Your task to perform on an android device: open app "Mercado Libre" Image 0: 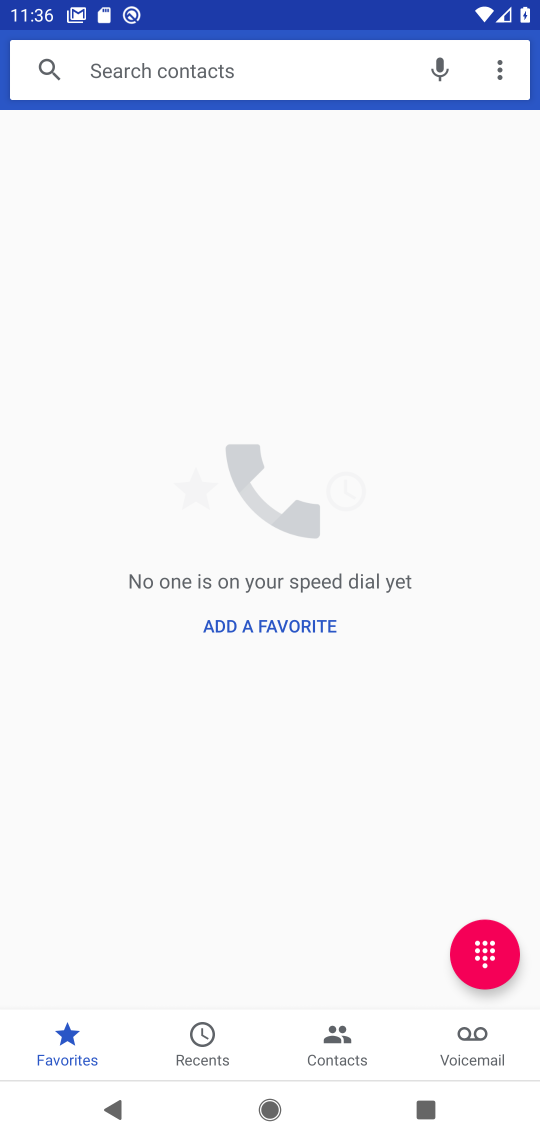
Step 0: press home button
Your task to perform on an android device: open app "Mercado Libre" Image 1: 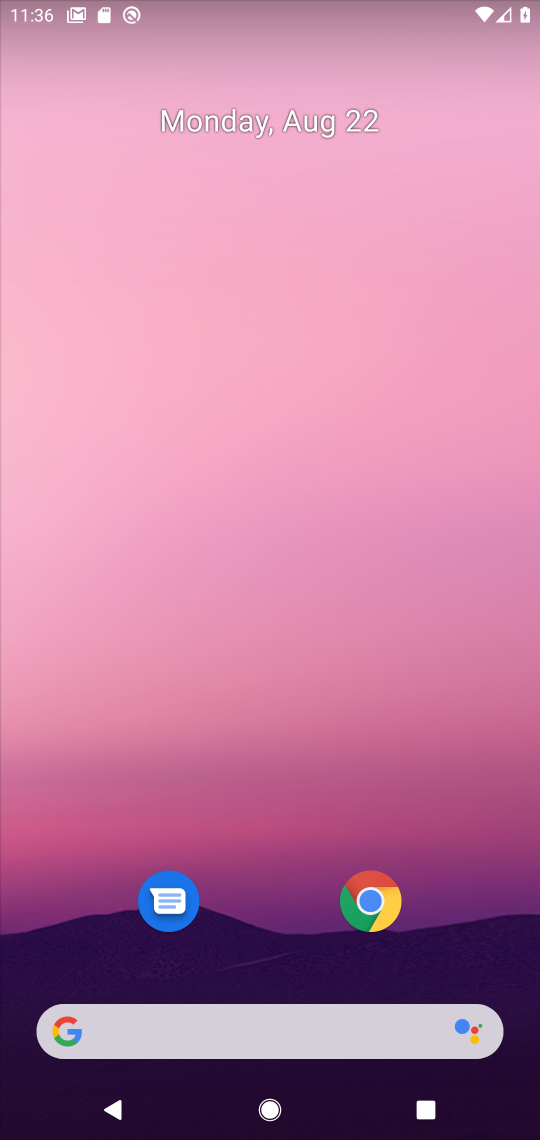
Step 1: drag from (251, 967) to (445, 34)
Your task to perform on an android device: open app "Mercado Libre" Image 2: 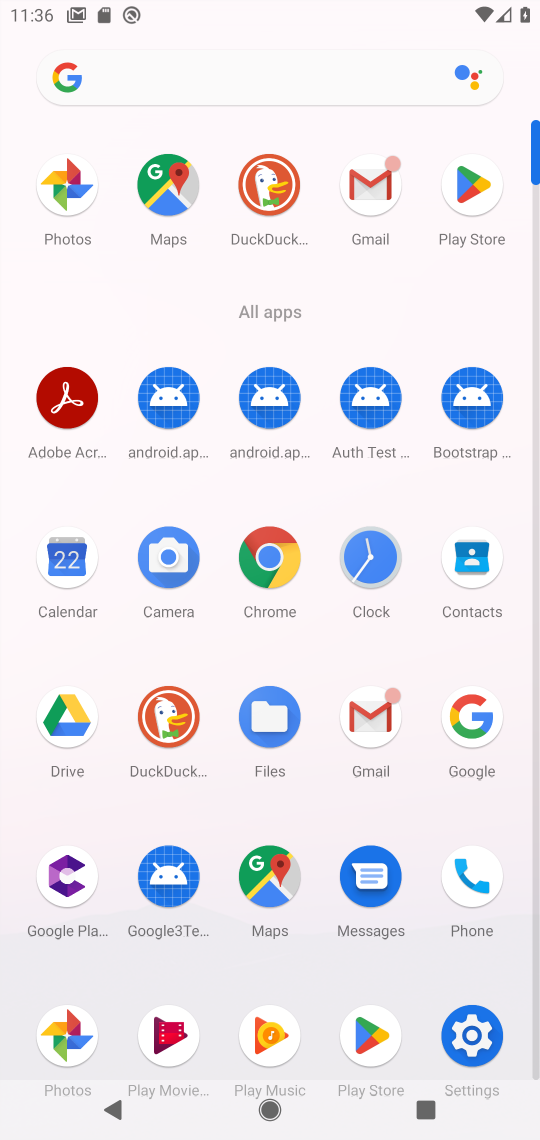
Step 2: click (477, 207)
Your task to perform on an android device: open app "Mercado Libre" Image 3: 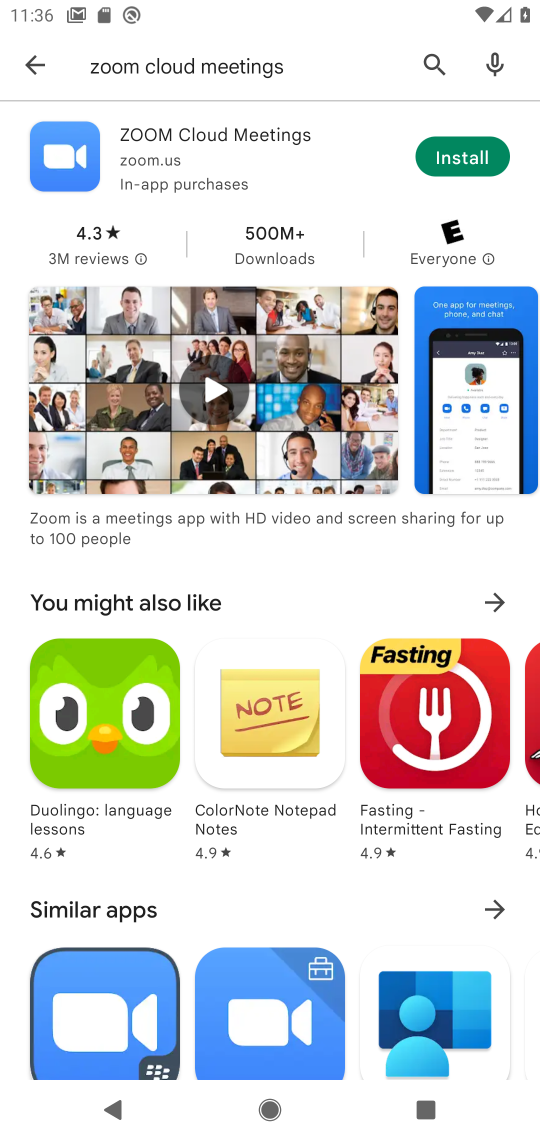
Step 3: click (286, 66)
Your task to perform on an android device: open app "Mercado Libre" Image 4: 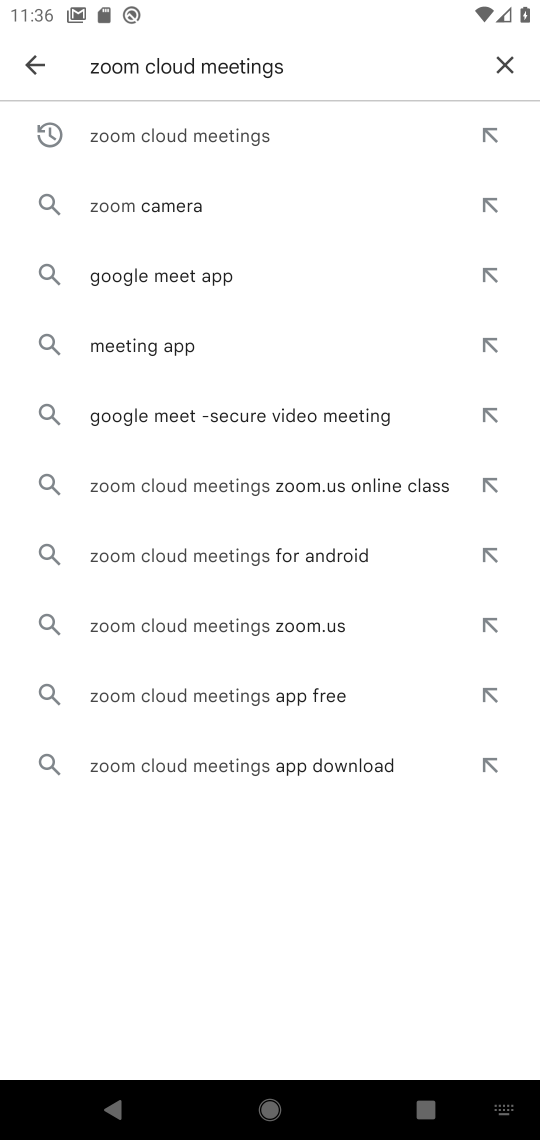
Step 4: click (513, 68)
Your task to perform on an android device: open app "Mercado Libre" Image 5: 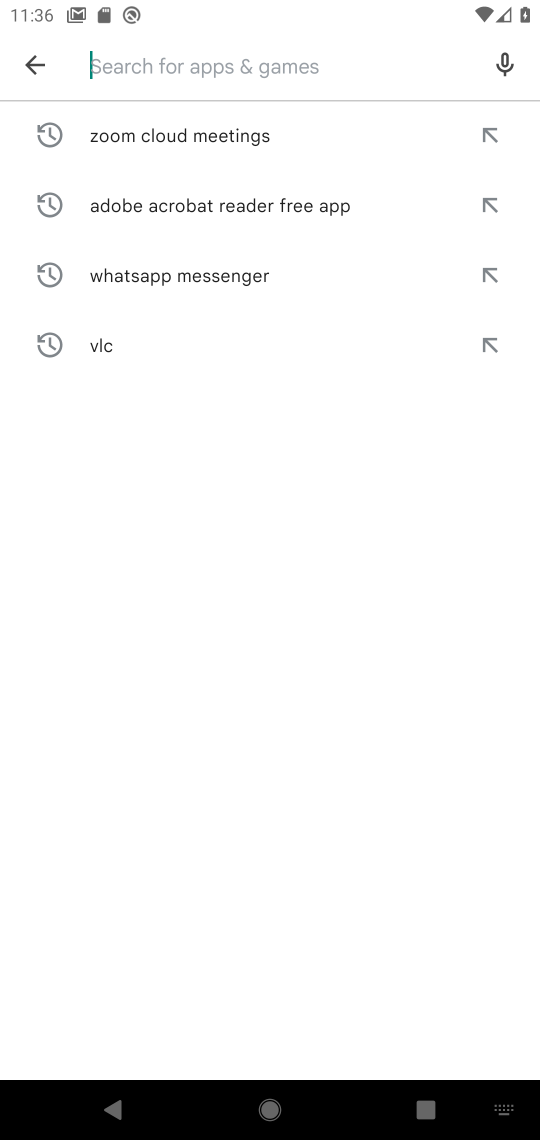
Step 5: type "mercado libre"
Your task to perform on an android device: open app "Mercado Libre" Image 6: 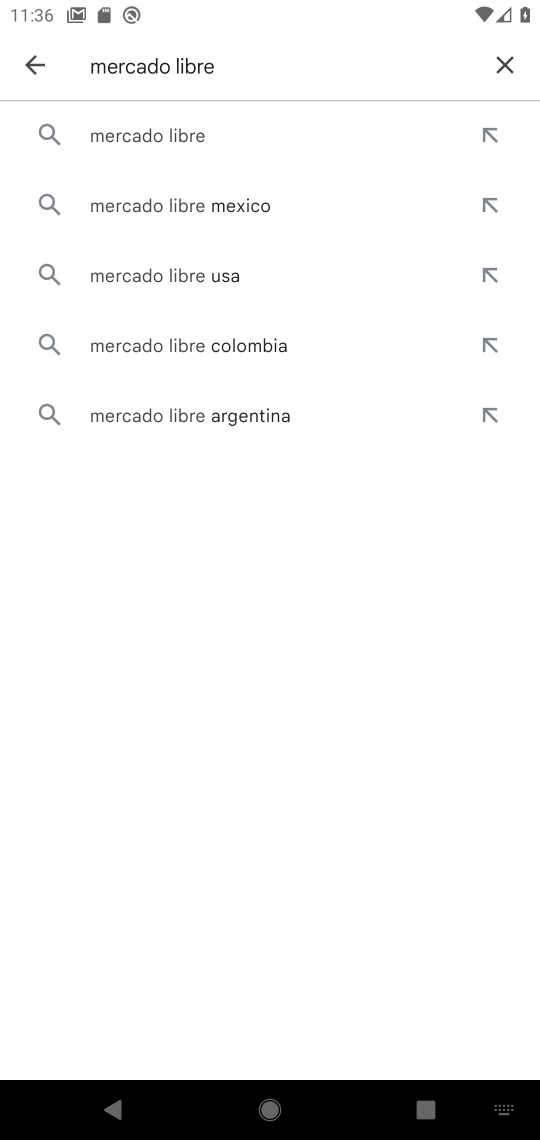
Step 6: click (187, 132)
Your task to perform on an android device: open app "Mercado Libre" Image 7: 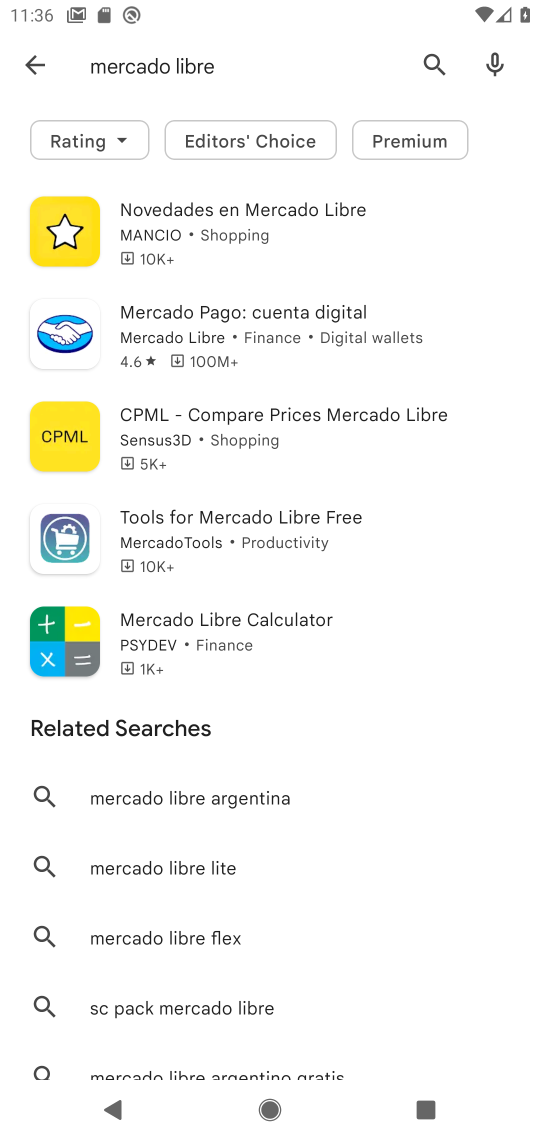
Step 7: task complete